Your task to perform on an android device: Open Youtube and go to the subscriptions tab Image 0: 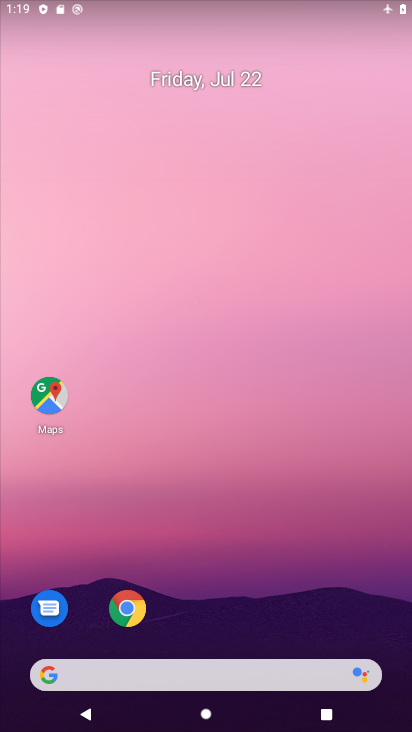
Step 0: drag from (257, 723) to (257, 313)
Your task to perform on an android device: Open Youtube and go to the subscriptions tab Image 1: 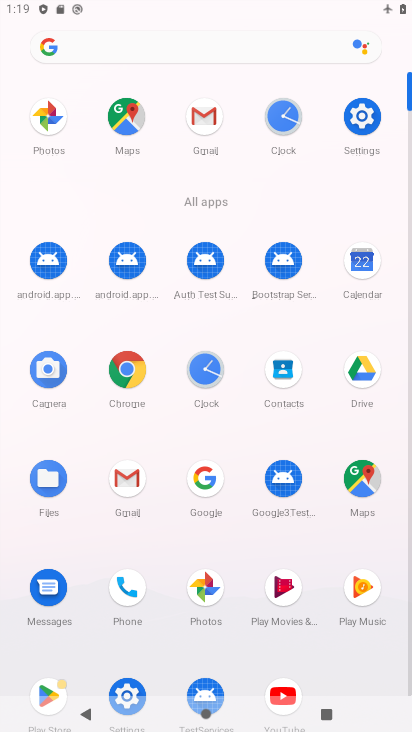
Step 1: click (283, 686)
Your task to perform on an android device: Open Youtube and go to the subscriptions tab Image 2: 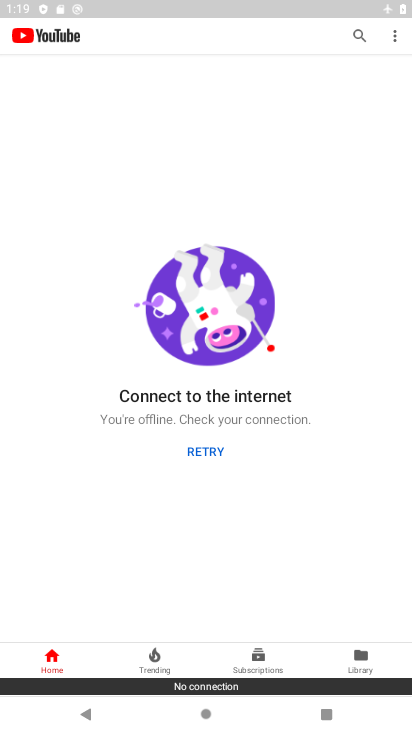
Step 2: click (259, 654)
Your task to perform on an android device: Open Youtube and go to the subscriptions tab Image 3: 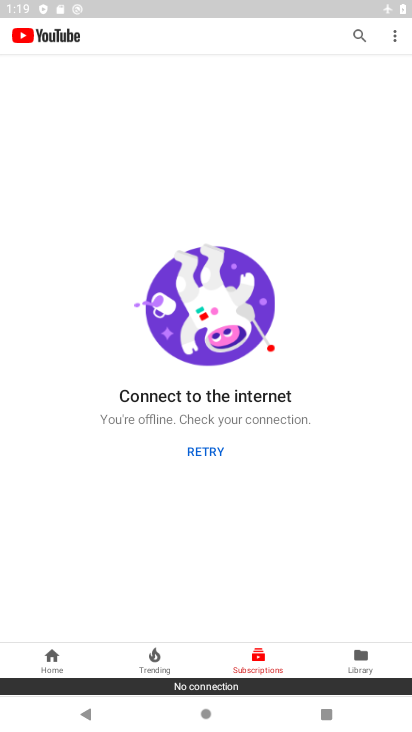
Step 3: task complete